Your task to perform on an android device: Search for "bose soundsport free" on ebay, select the first entry, and add it to the cart. Image 0: 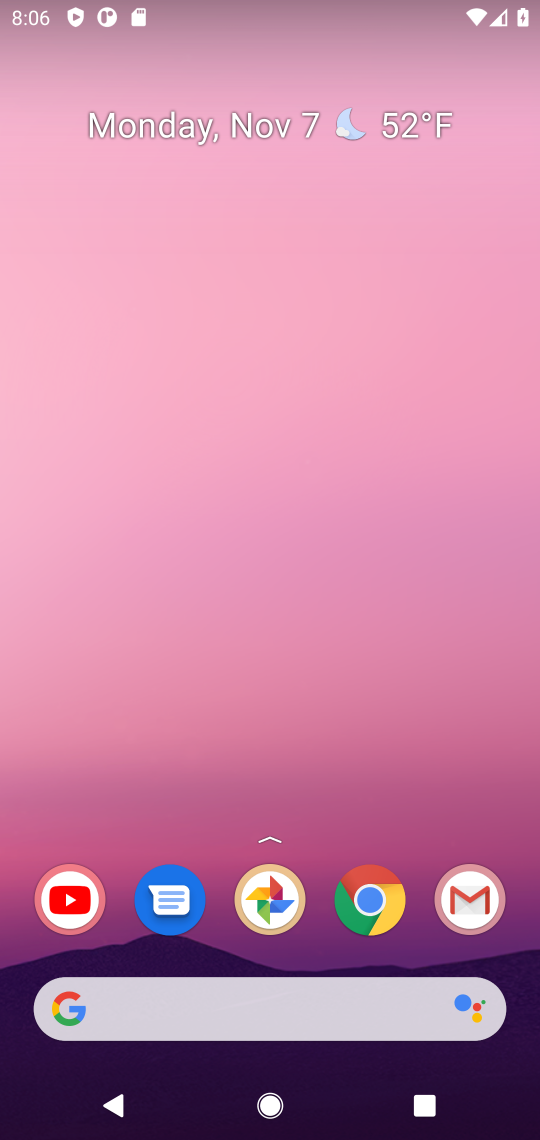
Step 0: click (271, 1020)
Your task to perform on an android device: Search for "bose soundsport free" on ebay, select the first entry, and add it to the cart. Image 1: 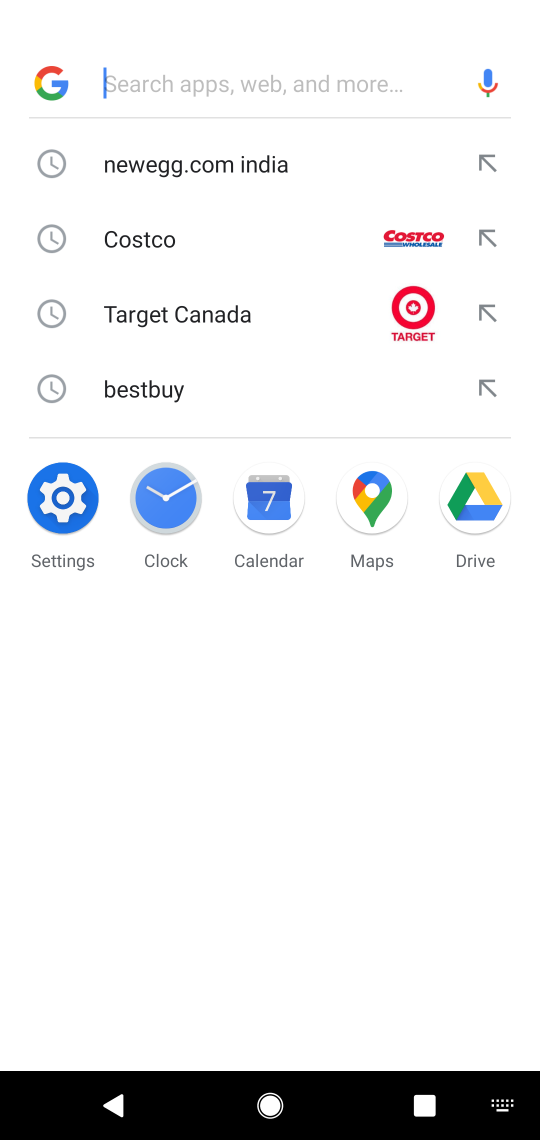
Step 1: type "ebay"
Your task to perform on an android device: Search for "bose soundsport free" on ebay, select the first entry, and add it to the cart. Image 2: 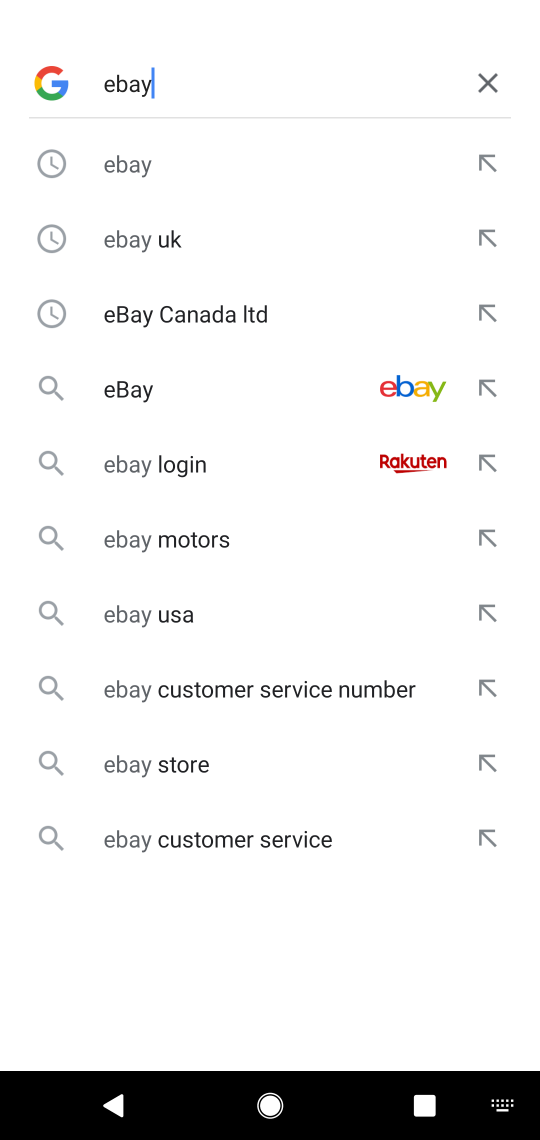
Step 2: click (220, 163)
Your task to perform on an android device: Search for "bose soundsport free" on ebay, select the first entry, and add it to the cart. Image 3: 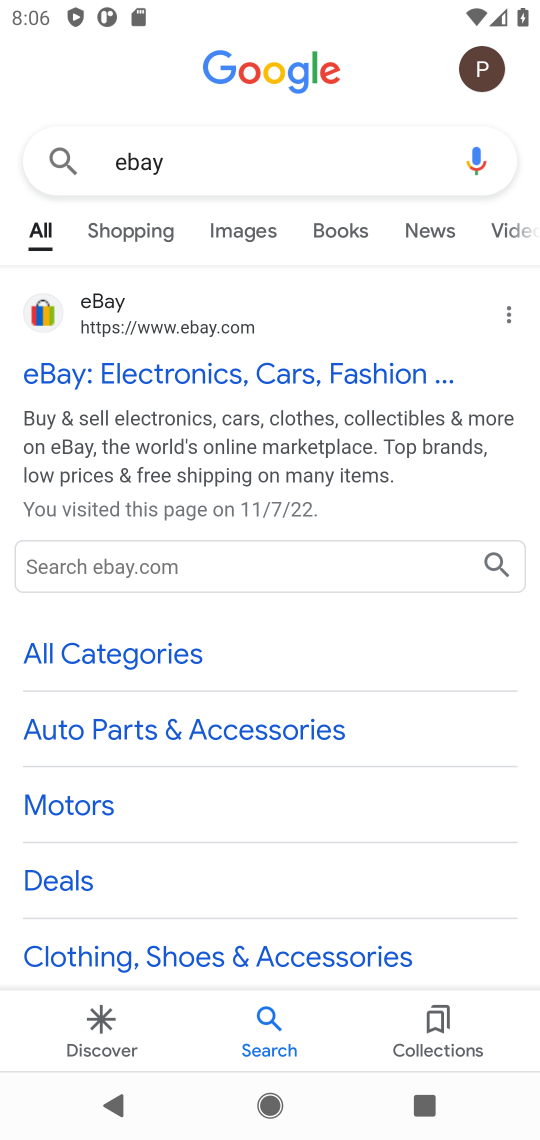
Step 3: click (288, 383)
Your task to perform on an android device: Search for "bose soundsport free" on ebay, select the first entry, and add it to the cart. Image 4: 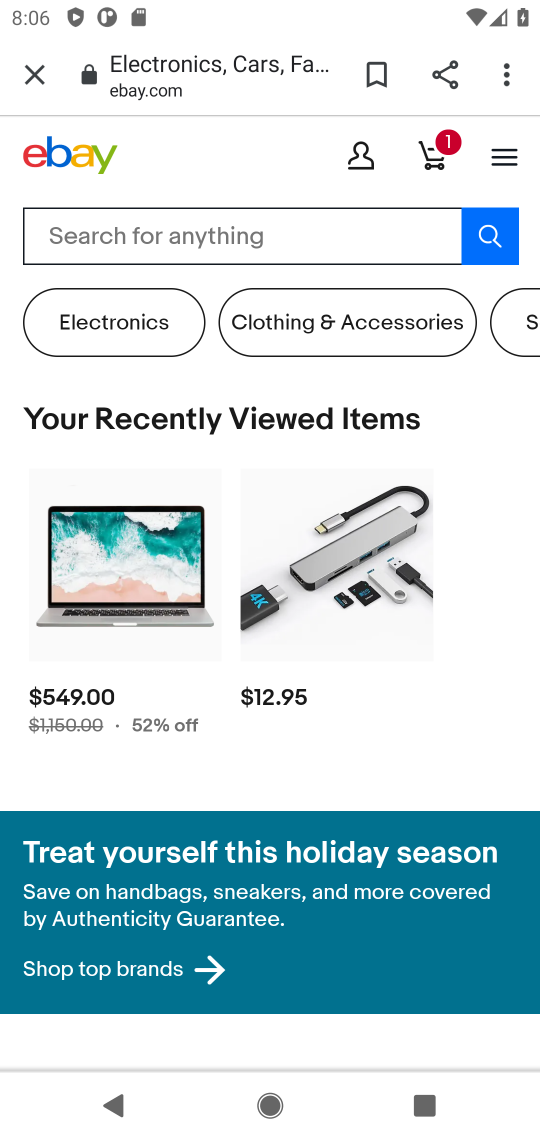
Step 4: click (303, 242)
Your task to perform on an android device: Search for "bose soundsport free" on ebay, select the first entry, and add it to the cart. Image 5: 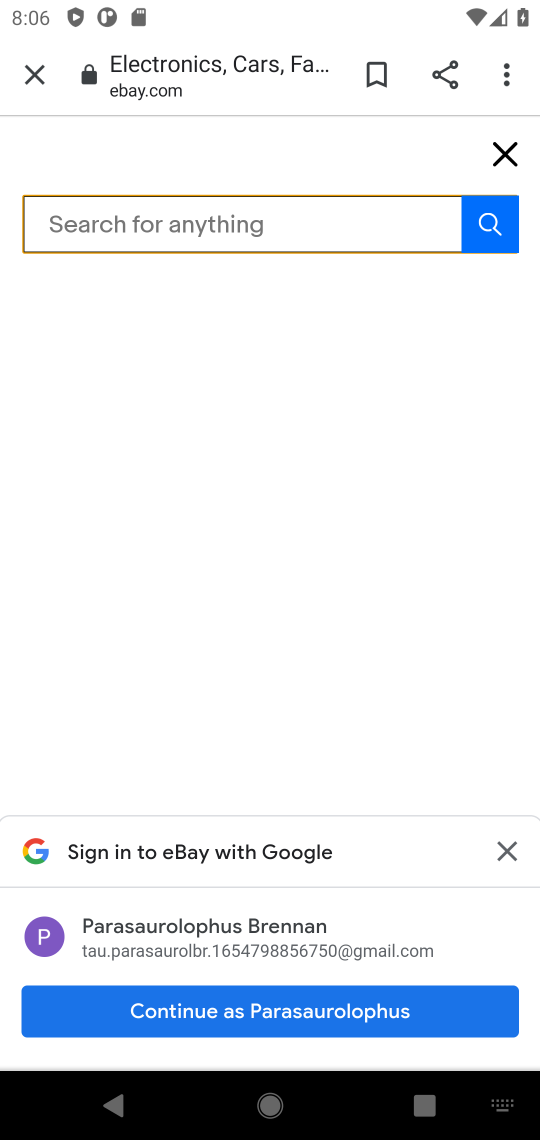
Step 5: type "bose soundsport"
Your task to perform on an android device: Search for "bose soundsport free" on ebay, select the first entry, and add it to the cart. Image 6: 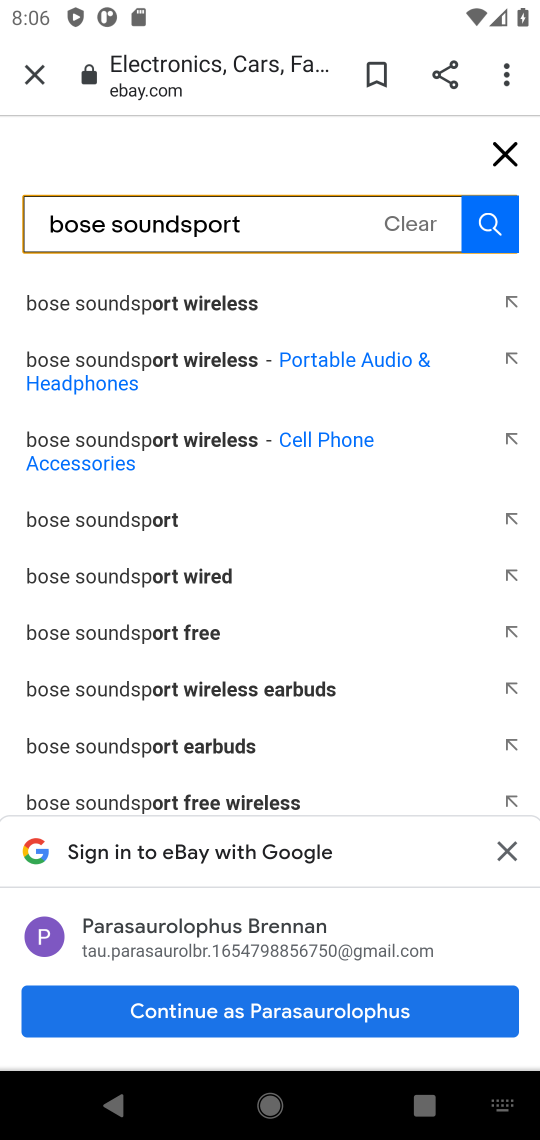
Step 6: click (133, 287)
Your task to perform on an android device: Search for "bose soundsport free" on ebay, select the first entry, and add it to the cart. Image 7: 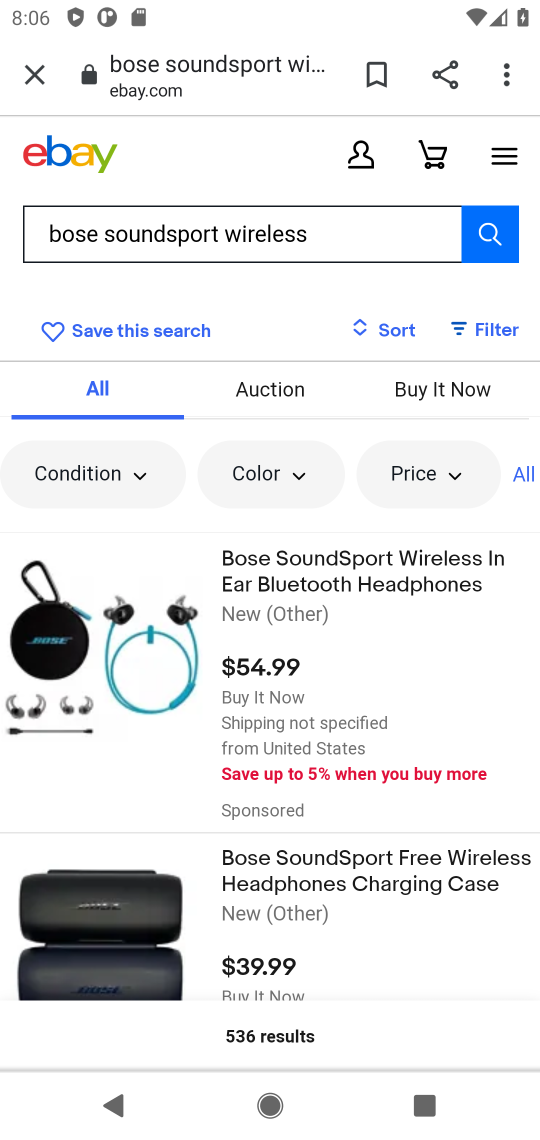
Step 7: click (316, 599)
Your task to perform on an android device: Search for "bose soundsport free" on ebay, select the first entry, and add it to the cart. Image 8: 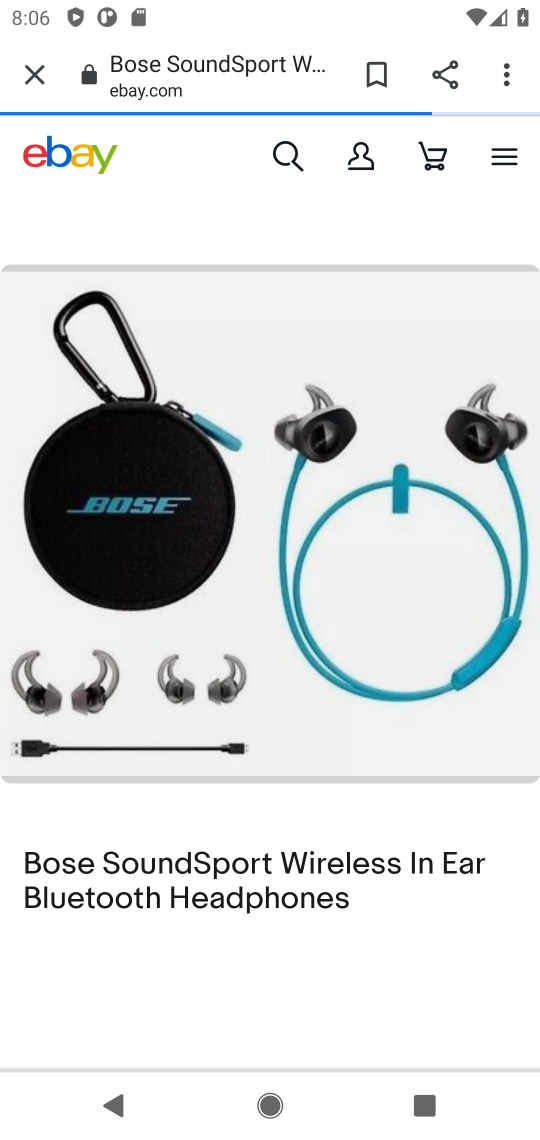
Step 8: drag from (346, 789) to (301, 410)
Your task to perform on an android device: Search for "bose soundsport free" on ebay, select the first entry, and add it to the cart. Image 9: 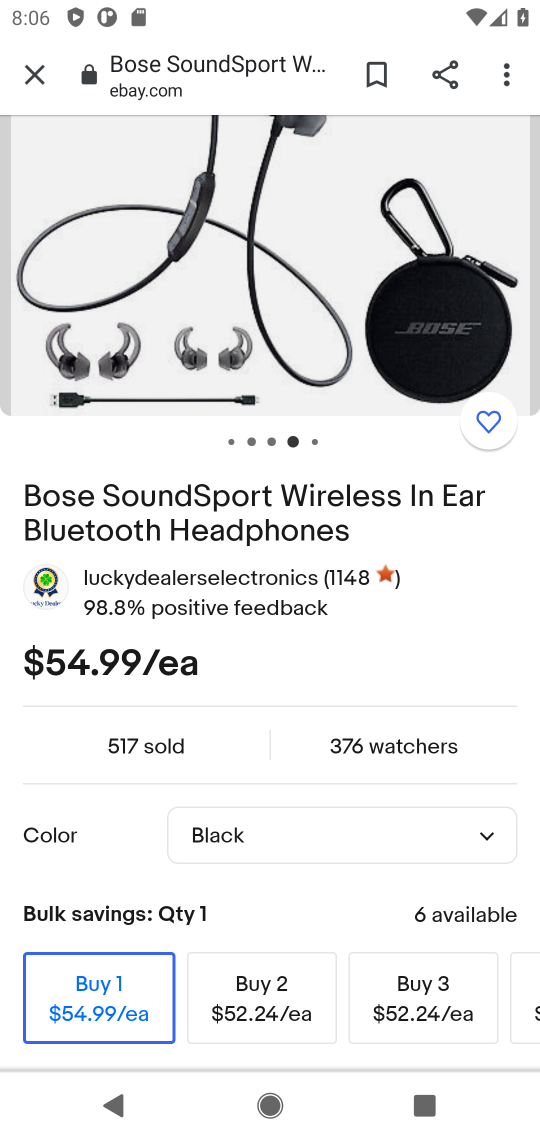
Step 9: drag from (408, 976) to (364, 601)
Your task to perform on an android device: Search for "bose soundsport free" on ebay, select the first entry, and add it to the cart. Image 10: 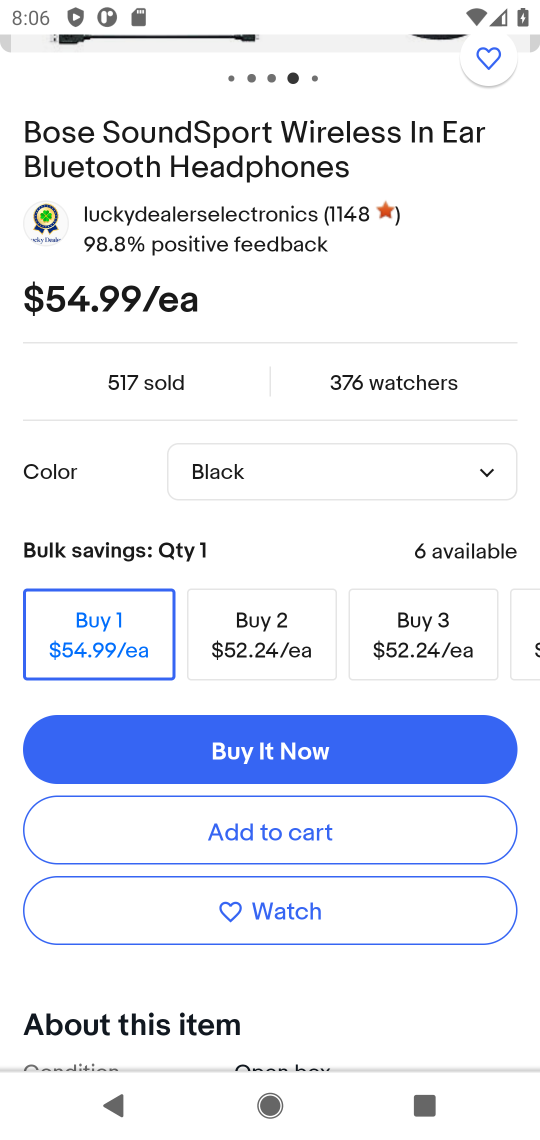
Step 10: click (441, 813)
Your task to perform on an android device: Search for "bose soundsport free" on ebay, select the first entry, and add it to the cart. Image 11: 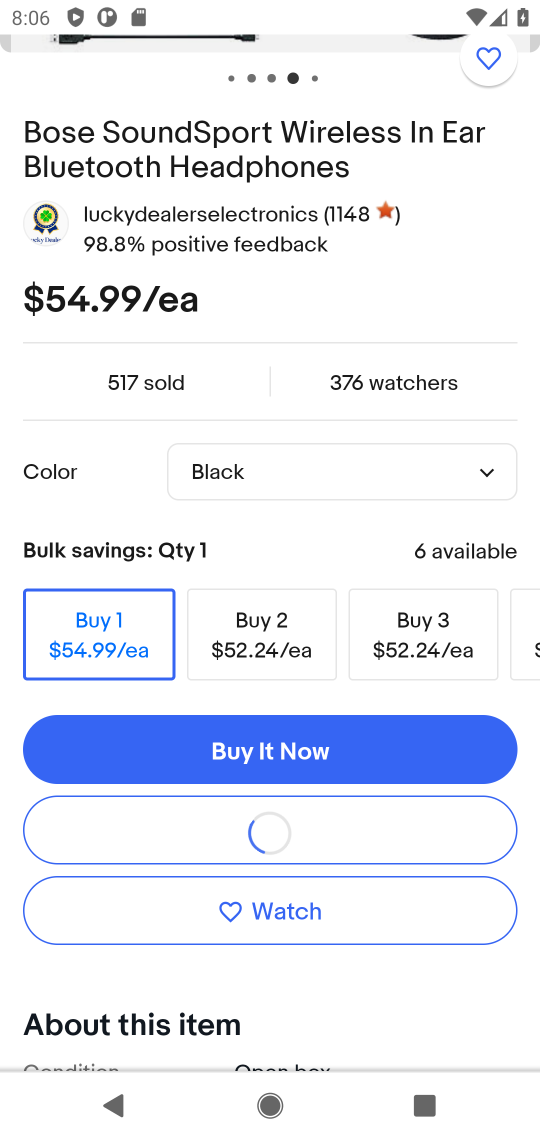
Step 11: task complete